Your task to perform on an android device: Search for pizza restaurants on Maps Image 0: 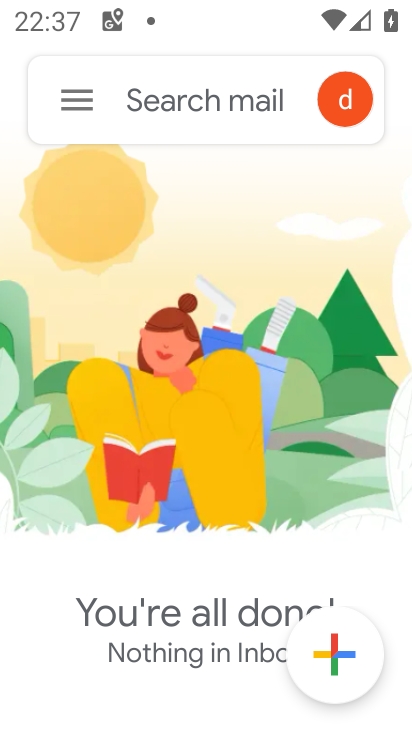
Step 0: press home button
Your task to perform on an android device: Search for pizza restaurants on Maps Image 1: 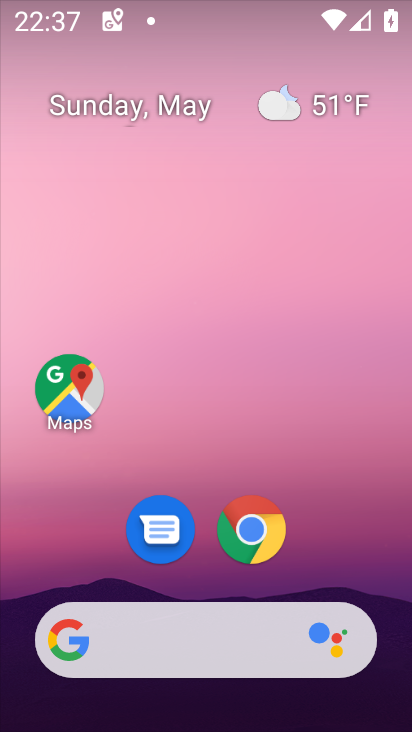
Step 1: drag from (341, 584) to (330, 64)
Your task to perform on an android device: Search for pizza restaurants on Maps Image 2: 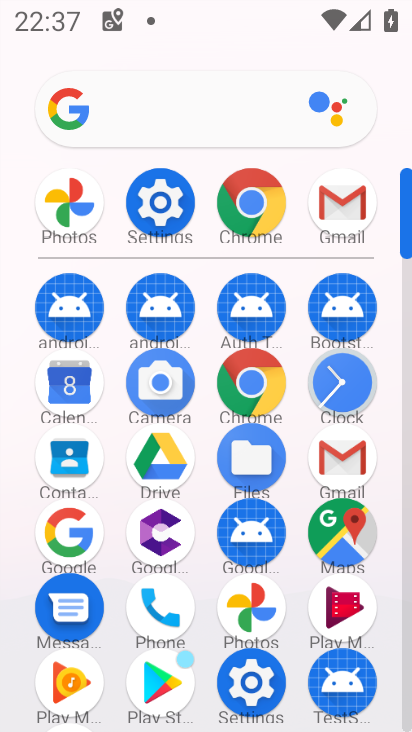
Step 2: click (348, 526)
Your task to perform on an android device: Search for pizza restaurants on Maps Image 3: 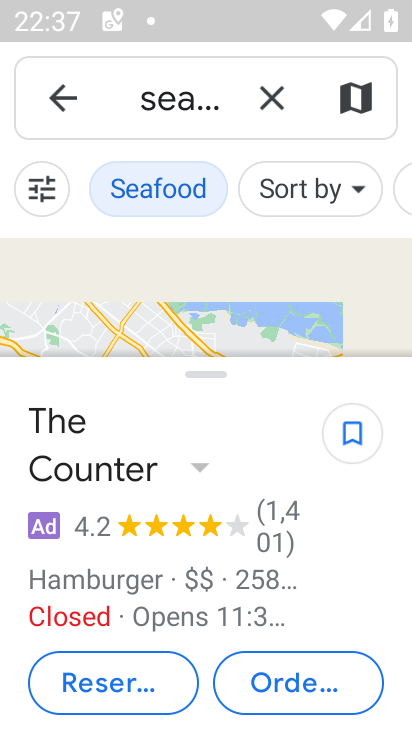
Step 3: click (261, 98)
Your task to perform on an android device: Search for pizza restaurants on Maps Image 4: 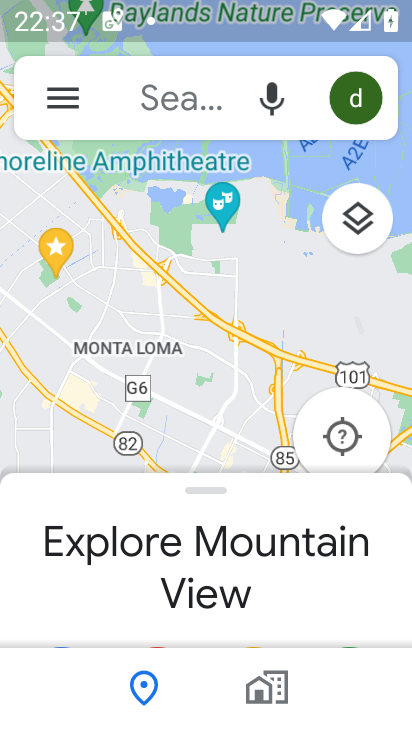
Step 4: click (247, 99)
Your task to perform on an android device: Search for pizza restaurants on Maps Image 5: 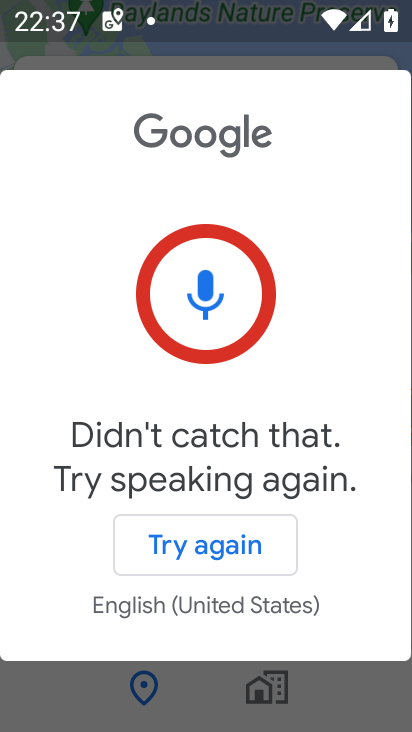
Step 5: click (234, 555)
Your task to perform on an android device: Search for pizza restaurants on Maps Image 6: 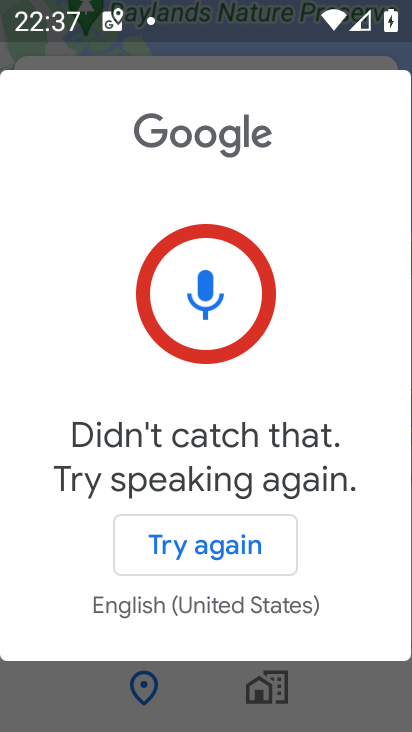
Step 6: press back button
Your task to perform on an android device: Search for pizza restaurants on Maps Image 7: 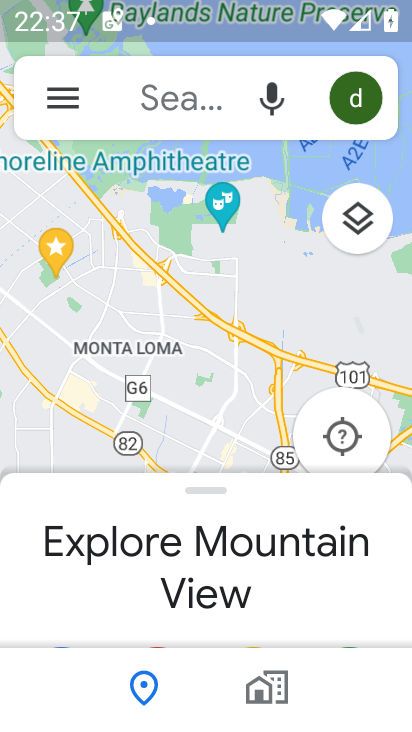
Step 7: click (208, 97)
Your task to perform on an android device: Search for pizza restaurants on Maps Image 8: 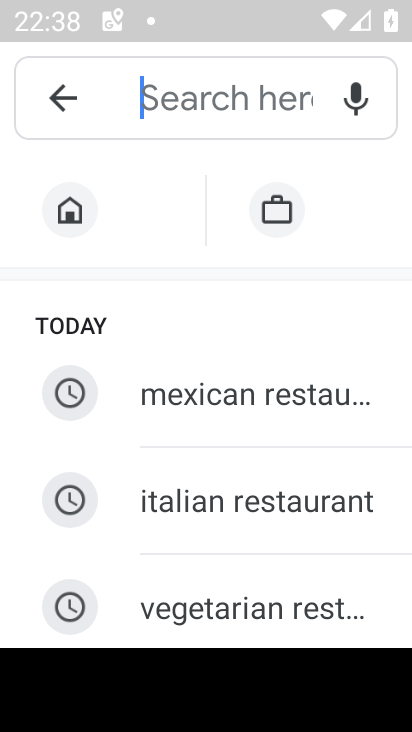
Step 8: type "pizza res"
Your task to perform on an android device: Search for pizza restaurants on Maps Image 9: 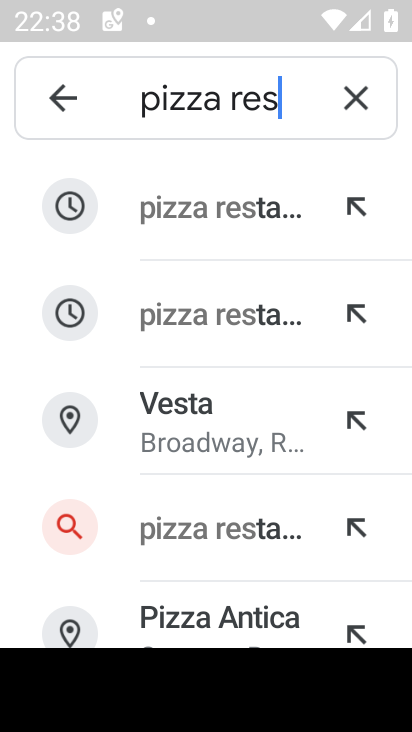
Step 9: click (233, 231)
Your task to perform on an android device: Search for pizza restaurants on Maps Image 10: 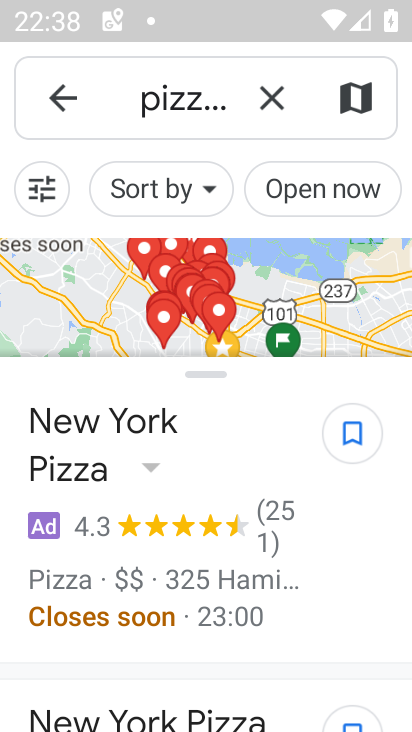
Step 10: task complete